Your task to perform on an android device: empty trash in google photos Image 0: 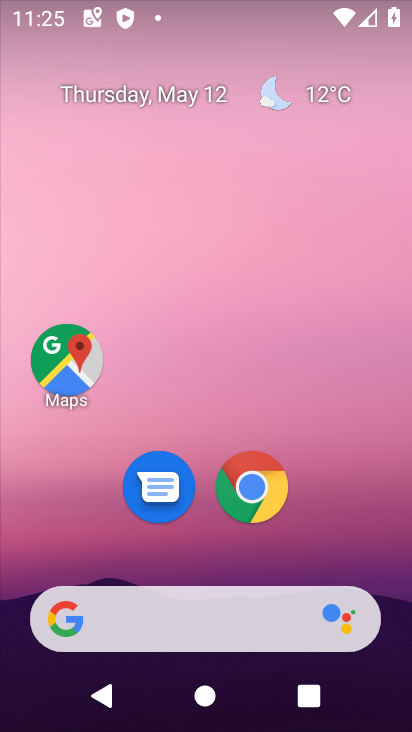
Step 0: drag from (358, 527) to (361, 0)
Your task to perform on an android device: empty trash in google photos Image 1: 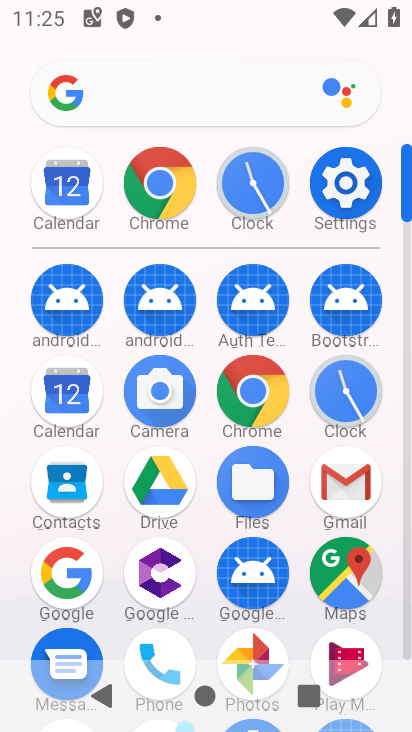
Step 1: click (251, 644)
Your task to perform on an android device: empty trash in google photos Image 2: 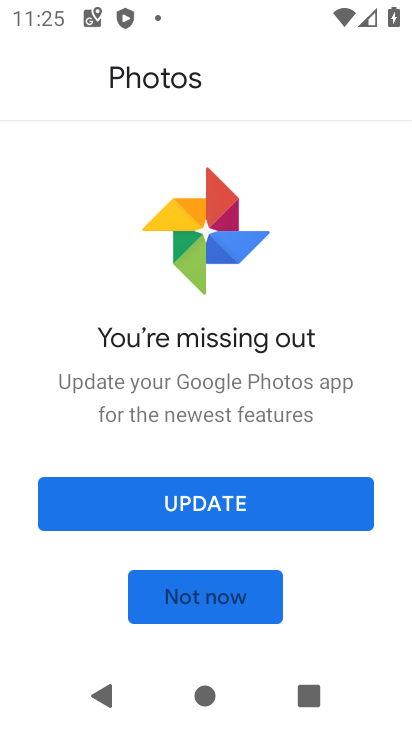
Step 2: click (220, 596)
Your task to perform on an android device: empty trash in google photos Image 3: 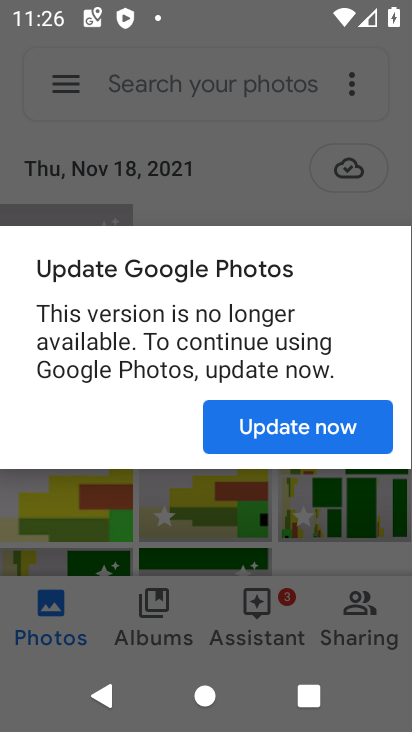
Step 3: click (271, 429)
Your task to perform on an android device: empty trash in google photos Image 4: 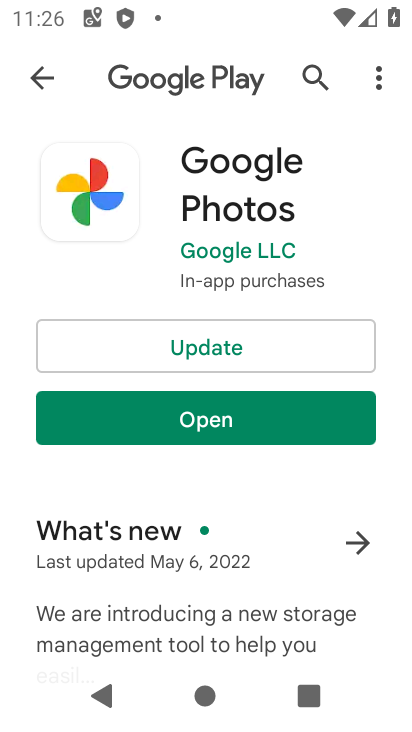
Step 4: click (185, 429)
Your task to perform on an android device: empty trash in google photos Image 5: 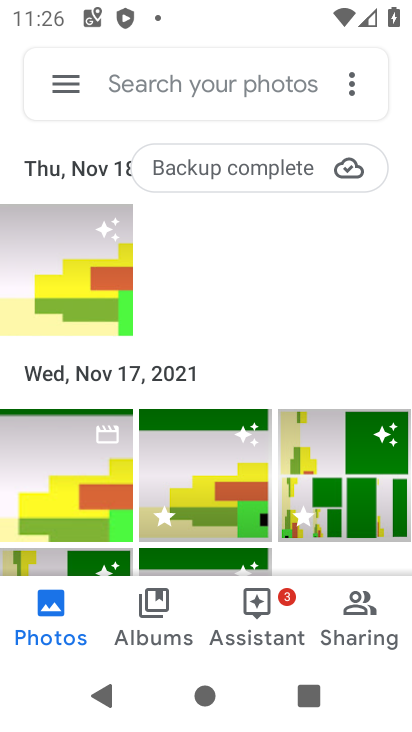
Step 5: click (63, 91)
Your task to perform on an android device: empty trash in google photos Image 6: 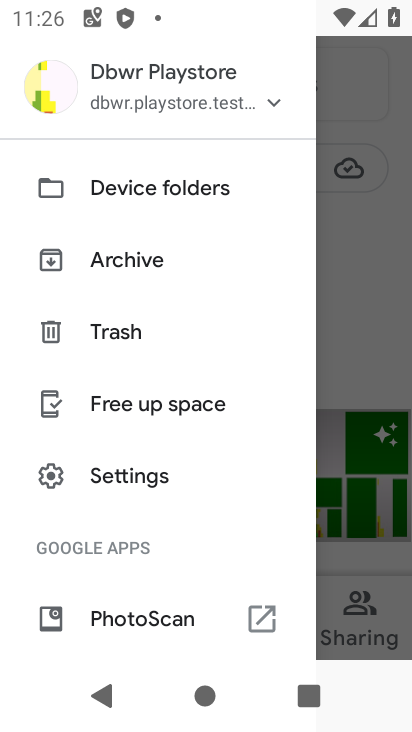
Step 6: click (104, 331)
Your task to perform on an android device: empty trash in google photos Image 7: 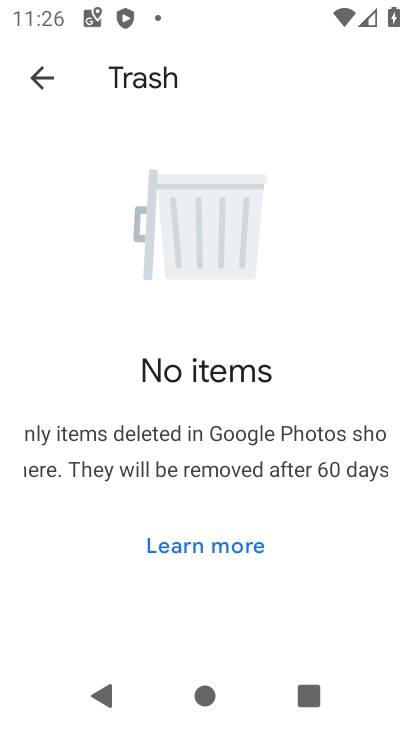
Step 7: task complete